Your task to perform on an android device: uninstall "Google Find My Device" Image 0: 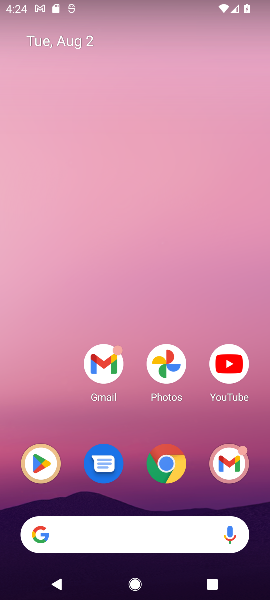
Step 0: click (37, 460)
Your task to perform on an android device: uninstall "Google Find My Device" Image 1: 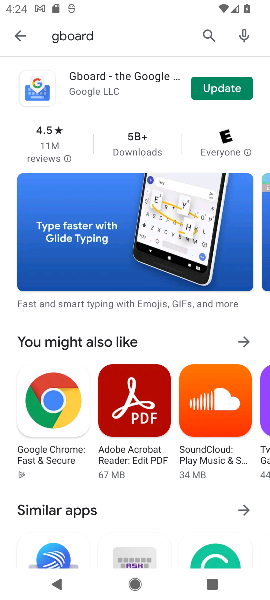
Step 1: click (207, 28)
Your task to perform on an android device: uninstall "Google Find My Device" Image 2: 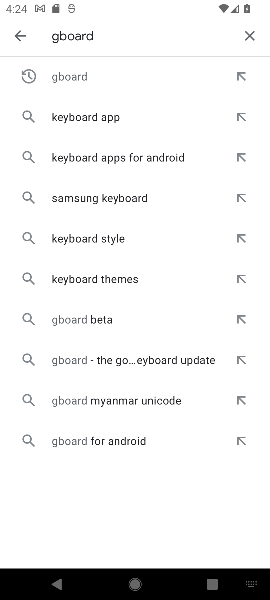
Step 2: click (248, 26)
Your task to perform on an android device: uninstall "Google Find My Device" Image 3: 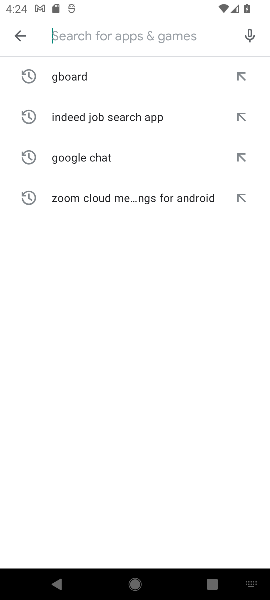
Step 3: type "Google Find My Device"
Your task to perform on an android device: uninstall "Google Find My Device" Image 4: 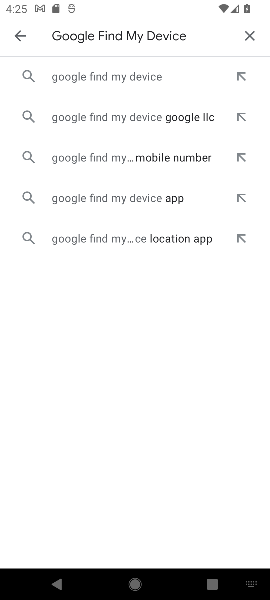
Step 4: click (75, 72)
Your task to perform on an android device: uninstall "Google Find My Device" Image 5: 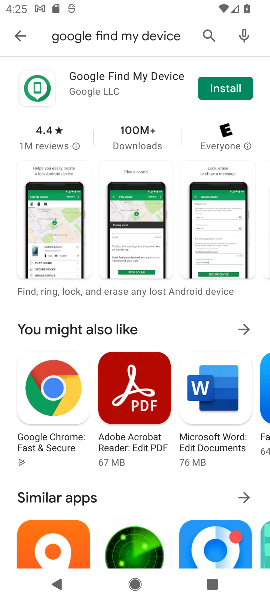
Step 5: task complete